Your task to perform on an android device: Is it going to rain this weekend? Image 0: 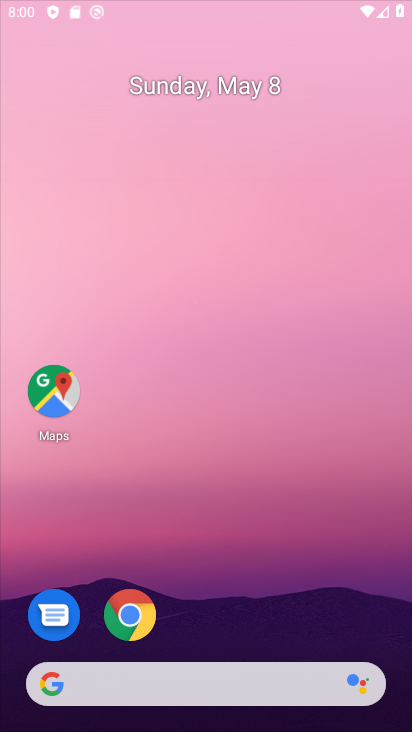
Step 0: drag from (230, 416) to (227, 219)
Your task to perform on an android device: Is it going to rain this weekend? Image 1: 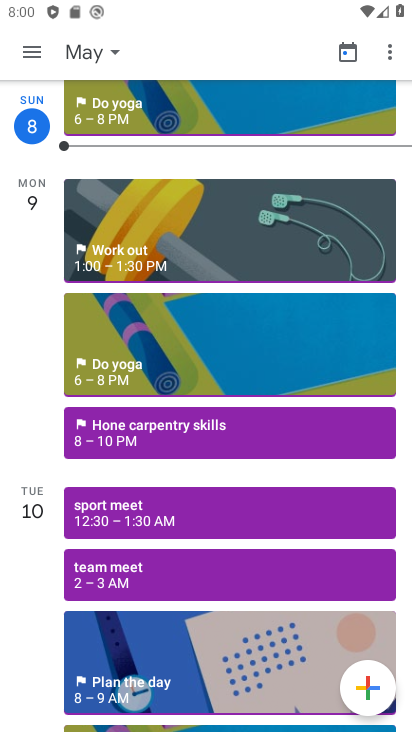
Step 1: press home button
Your task to perform on an android device: Is it going to rain this weekend? Image 2: 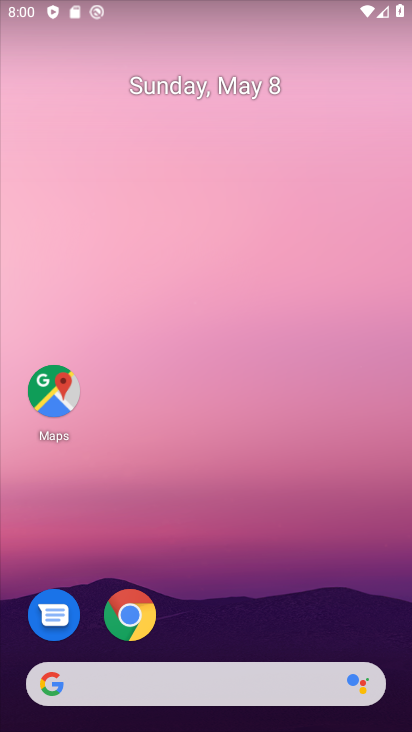
Step 2: click (132, 622)
Your task to perform on an android device: Is it going to rain this weekend? Image 3: 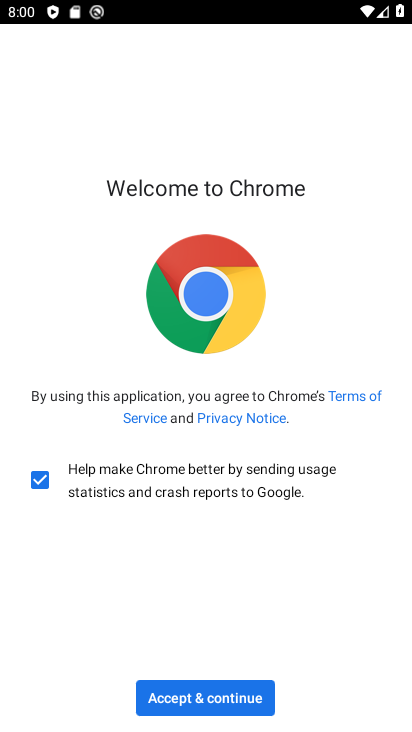
Step 3: click (199, 692)
Your task to perform on an android device: Is it going to rain this weekend? Image 4: 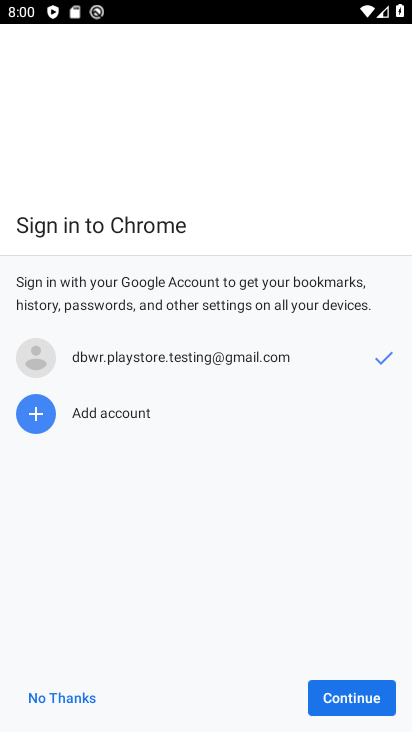
Step 4: click (382, 708)
Your task to perform on an android device: Is it going to rain this weekend? Image 5: 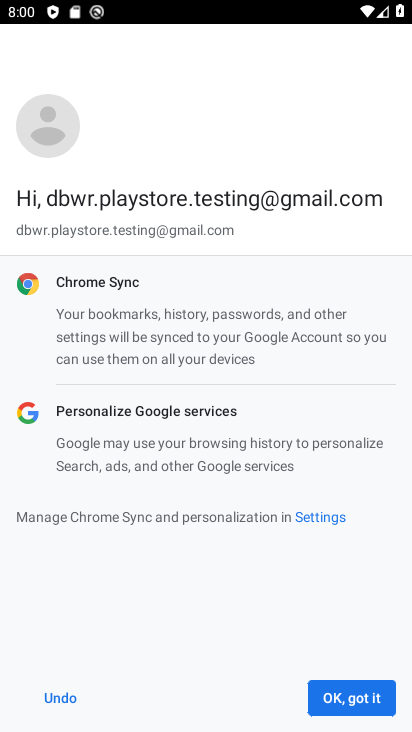
Step 5: click (382, 708)
Your task to perform on an android device: Is it going to rain this weekend? Image 6: 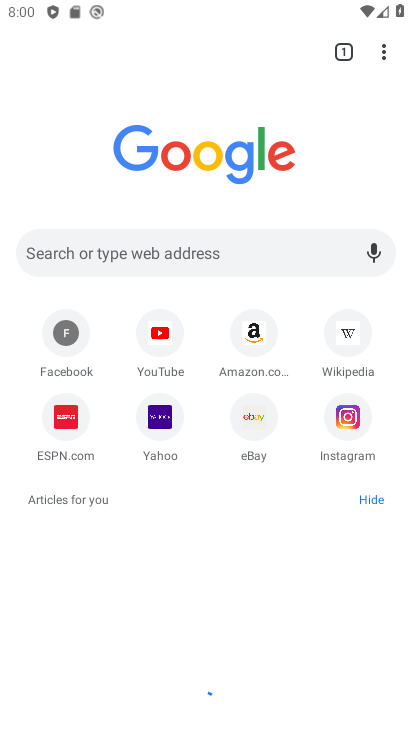
Step 6: drag from (40, 720) to (1, 376)
Your task to perform on an android device: Is it going to rain this weekend? Image 7: 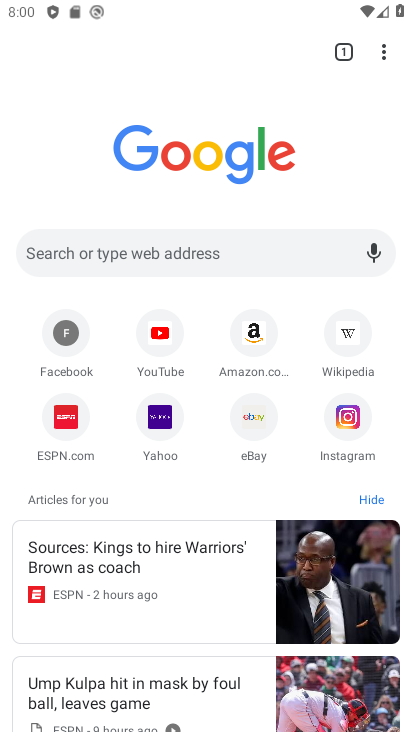
Step 7: click (133, 250)
Your task to perform on an android device: Is it going to rain this weekend? Image 8: 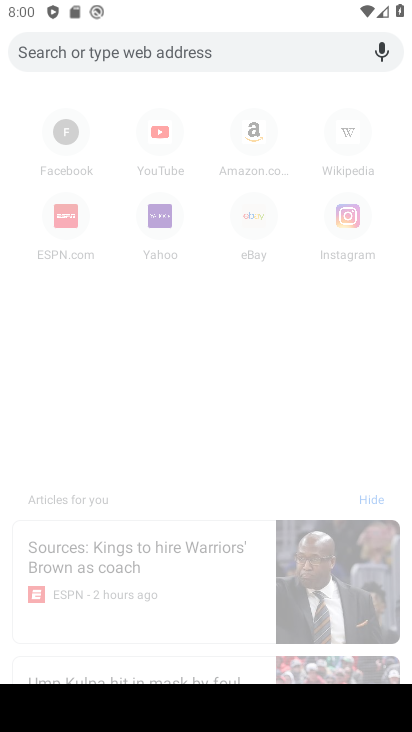
Step 8: type "Is it going to rain this weekend?"
Your task to perform on an android device: Is it going to rain this weekend? Image 9: 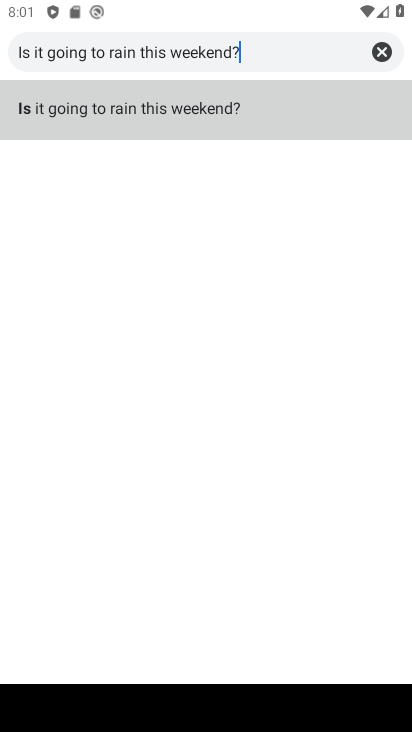
Step 9: click (226, 96)
Your task to perform on an android device: Is it going to rain this weekend? Image 10: 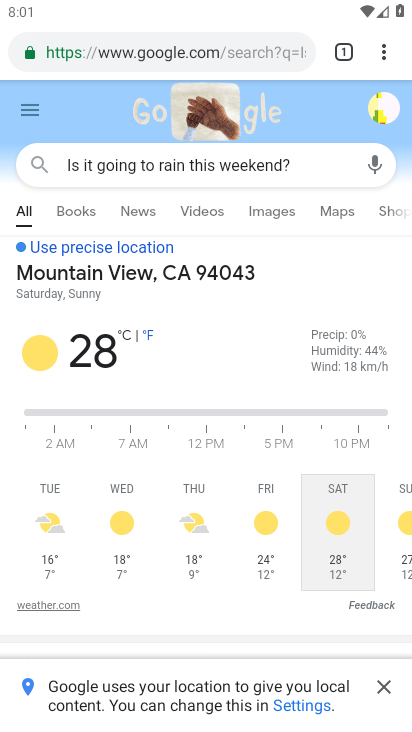
Step 10: task complete